Your task to perform on an android device: Go to ESPN.com Image 0: 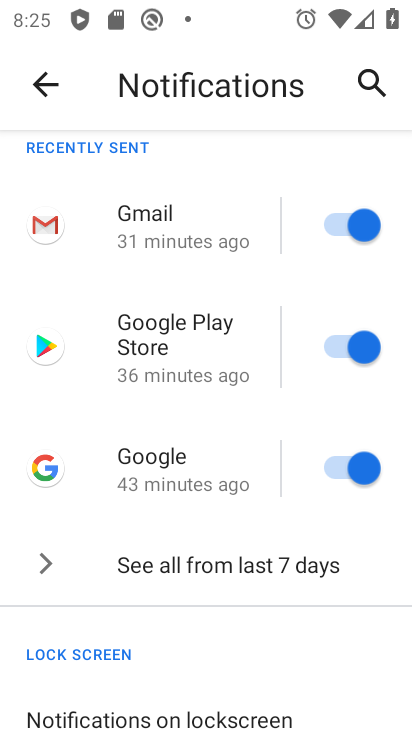
Step 0: press home button
Your task to perform on an android device: Go to ESPN.com Image 1: 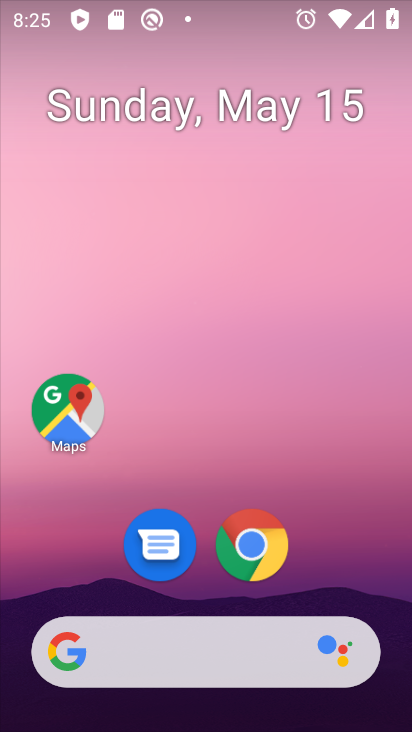
Step 1: drag from (364, 571) to (402, 474)
Your task to perform on an android device: Go to ESPN.com Image 2: 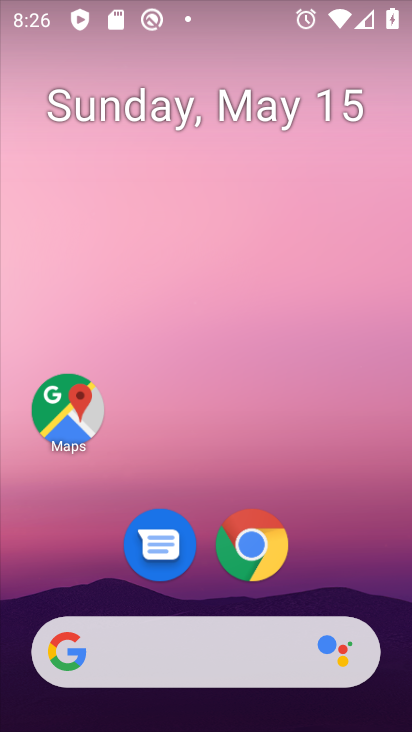
Step 2: drag from (365, 566) to (359, 42)
Your task to perform on an android device: Go to ESPN.com Image 3: 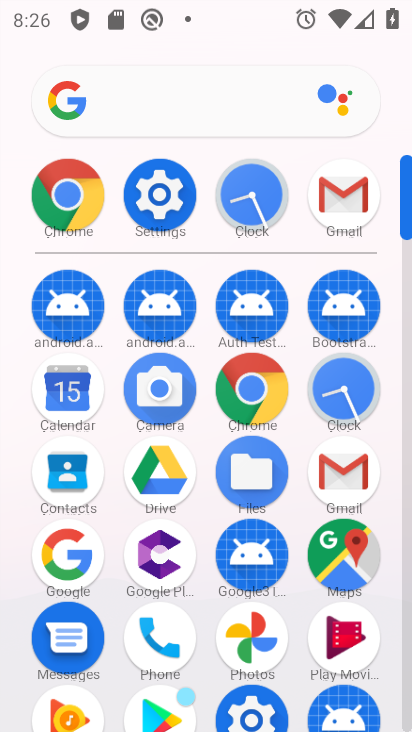
Step 3: click (244, 391)
Your task to perform on an android device: Go to ESPN.com Image 4: 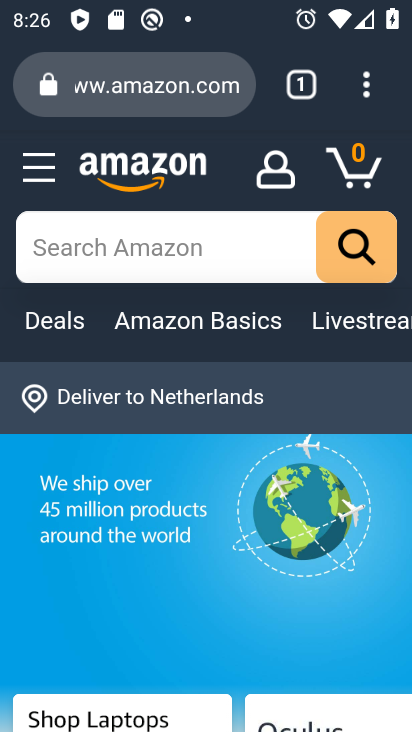
Step 4: click (168, 83)
Your task to perform on an android device: Go to ESPN.com Image 5: 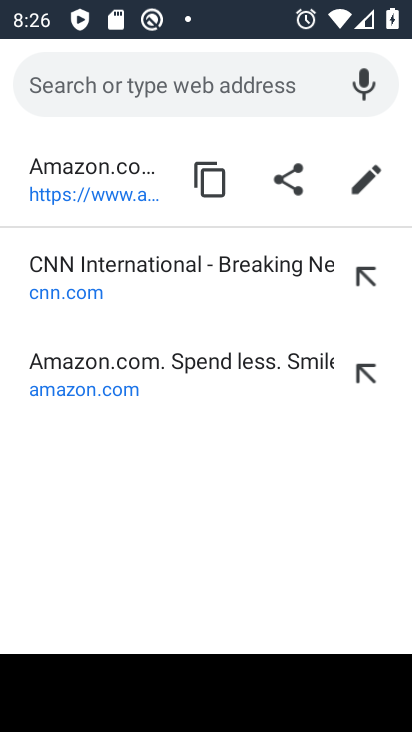
Step 5: type "espn.com"
Your task to perform on an android device: Go to ESPN.com Image 6: 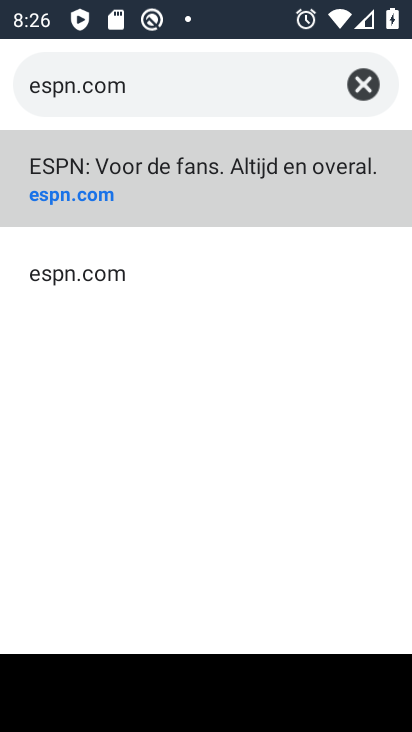
Step 6: click (133, 163)
Your task to perform on an android device: Go to ESPN.com Image 7: 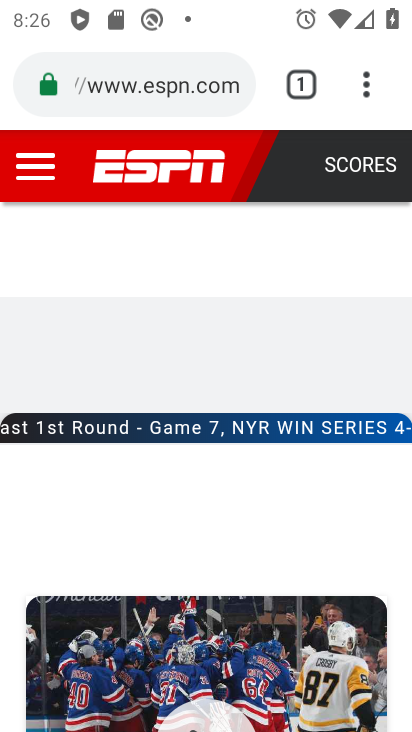
Step 7: task complete